Your task to perform on an android device: Go to Amazon Image 0: 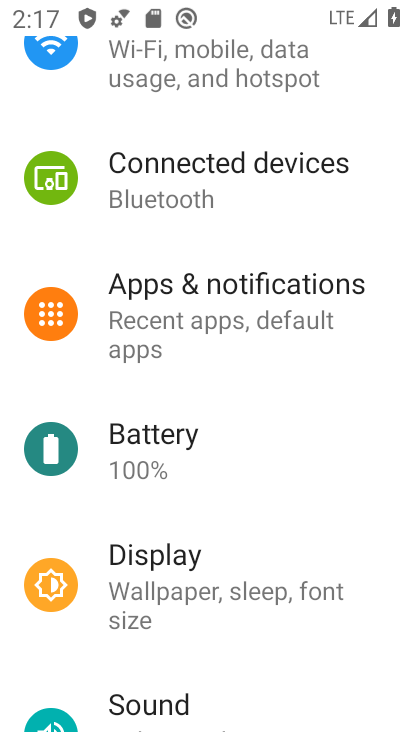
Step 0: press home button
Your task to perform on an android device: Go to Amazon Image 1: 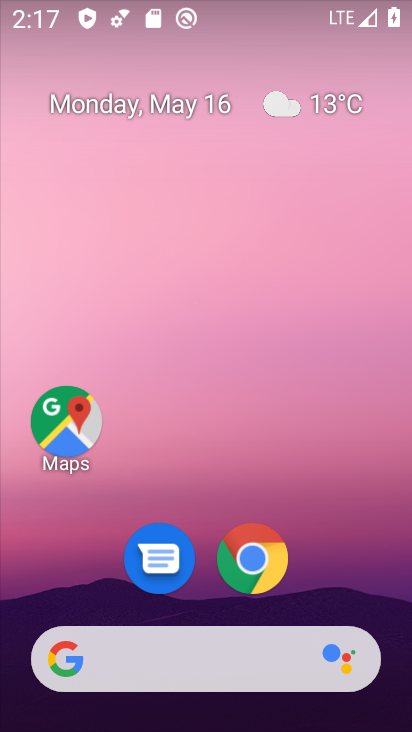
Step 1: click (250, 588)
Your task to perform on an android device: Go to Amazon Image 2: 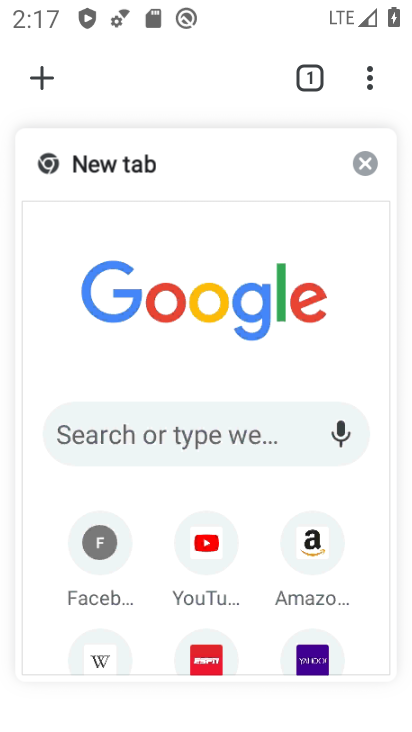
Step 2: click (305, 558)
Your task to perform on an android device: Go to Amazon Image 3: 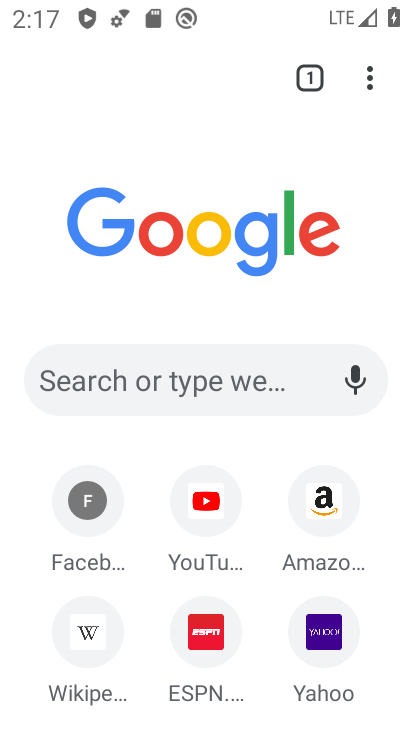
Step 3: click (327, 516)
Your task to perform on an android device: Go to Amazon Image 4: 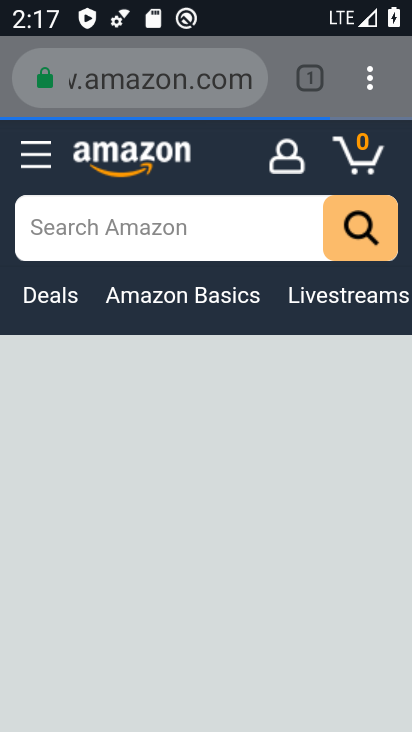
Step 4: task complete